Your task to perform on an android device: What is the recent news? Image 0: 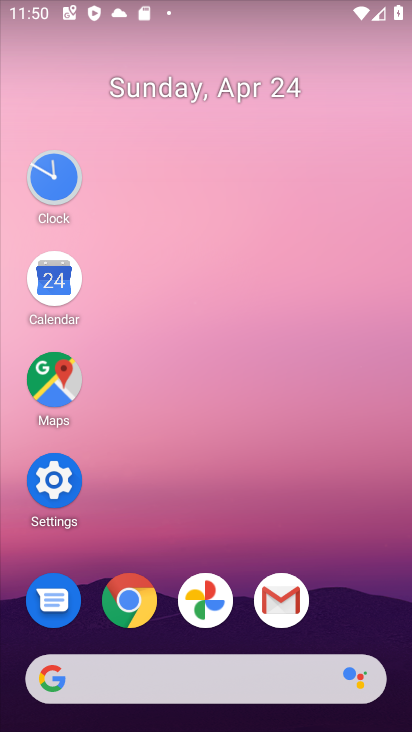
Step 0: drag from (17, 115) to (394, 446)
Your task to perform on an android device: What is the recent news? Image 1: 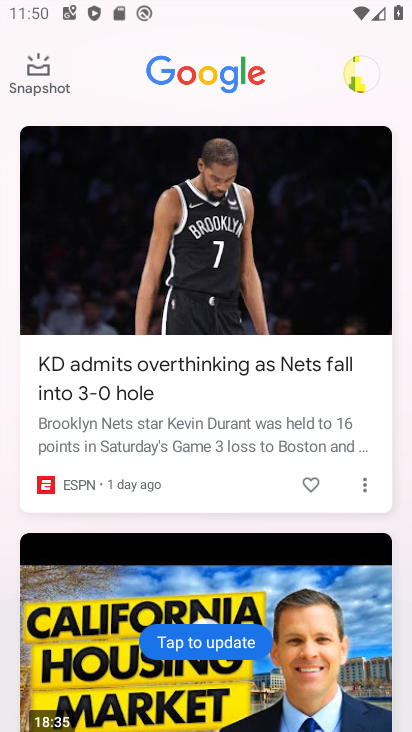
Step 1: task complete